Your task to perform on an android device: turn pop-ups off in chrome Image 0: 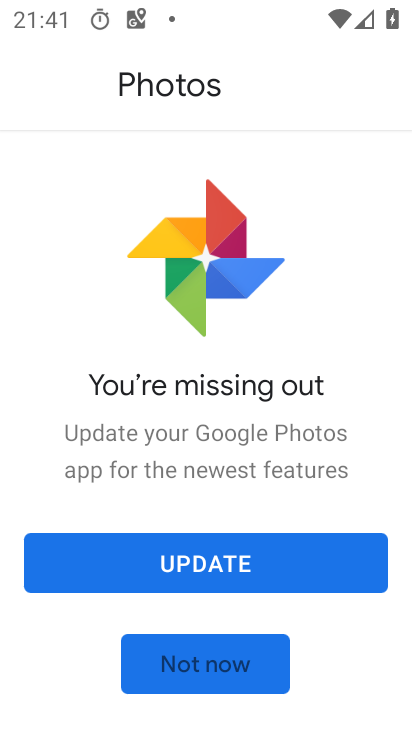
Step 0: press home button
Your task to perform on an android device: turn pop-ups off in chrome Image 1: 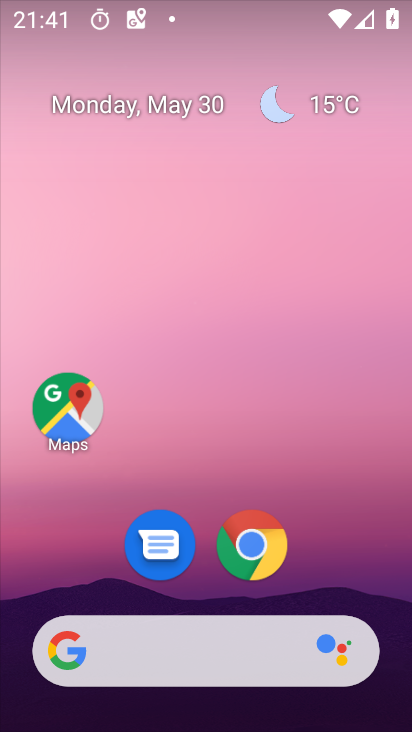
Step 1: click (255, 542)
Your task to perform on an android device: turn pop-ups off in chrome Image 2: 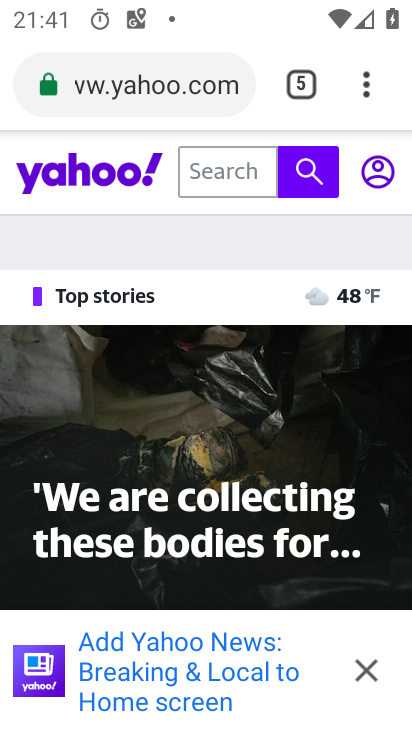
Step 2: click (372, 85)
Your task to perform on an android device: turn pop-ups off in chrome Image 3: 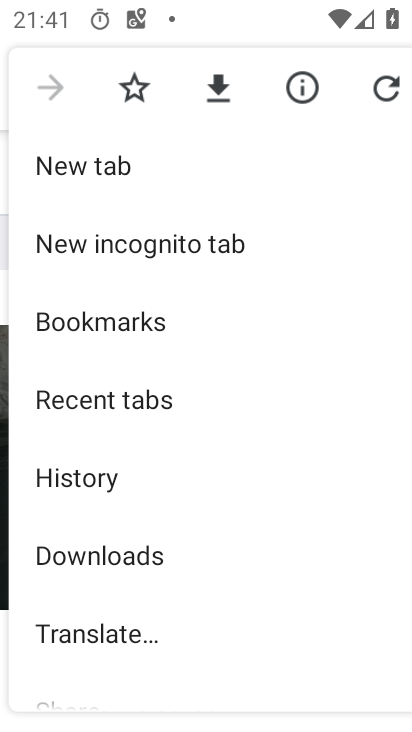
Step 3: drag from (176, 590) to (181, 324)
Your task to perform on an android device: turn pop-ups off in chrome Image 4: 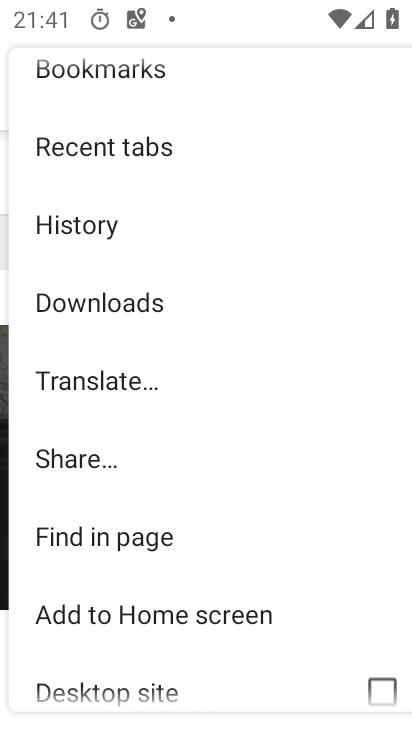
Step 4: drag from (193, 666) to (176, 362)
Your task to perform on an android device: turn pop-ups off in chrome Image 5: 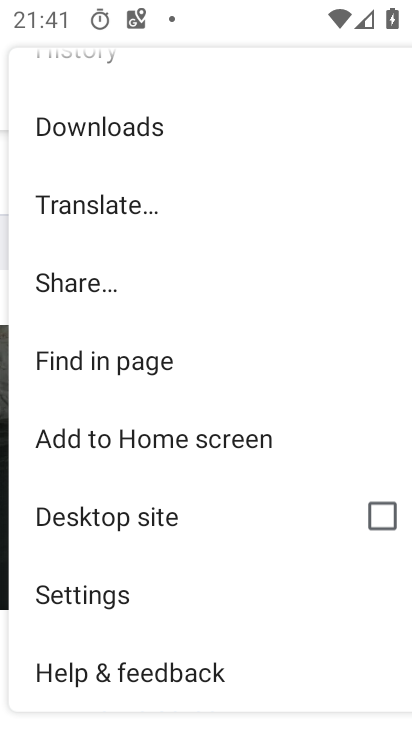
Step 5: click (102, 602)
Your task to perform on an android device: turn pop-ups off in chrome Image 6: 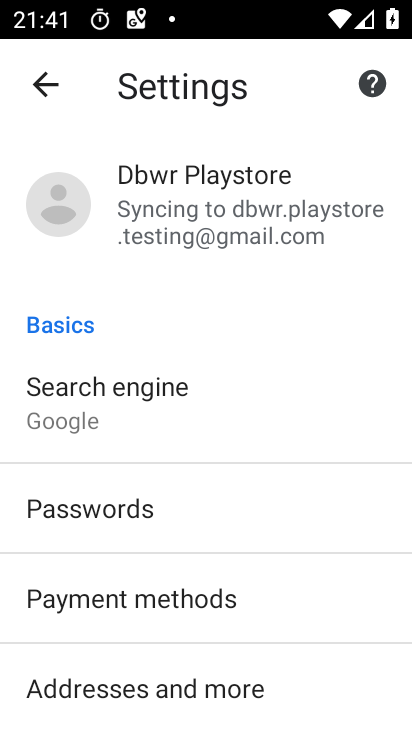
Step 6: drag from (307, 610) to (273, 295)
Your task to perform on an android device: turn pop-ups off in chrome Image 7: 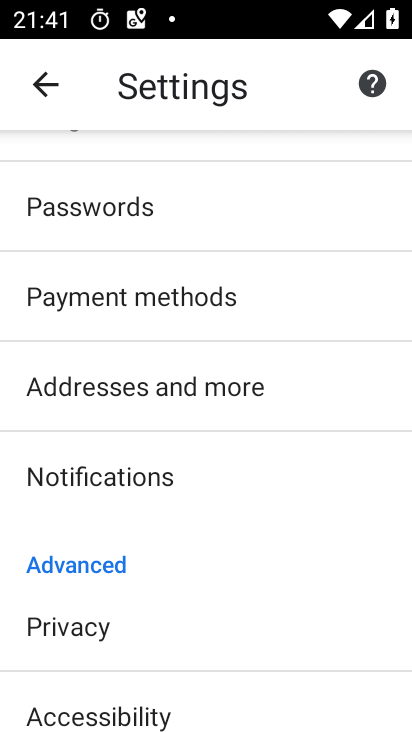
Step 7: drag from (245, 663) to (250, 398)
Your task to perform on an android device: turn pop-ups off in chrome Image 8: 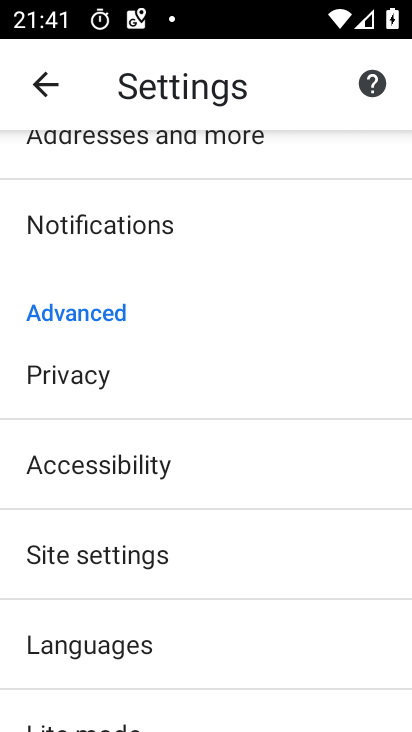
Step 8: click (181, 565)
Your task to perform on an android device: turn pop-ups off in chrome Image 9: 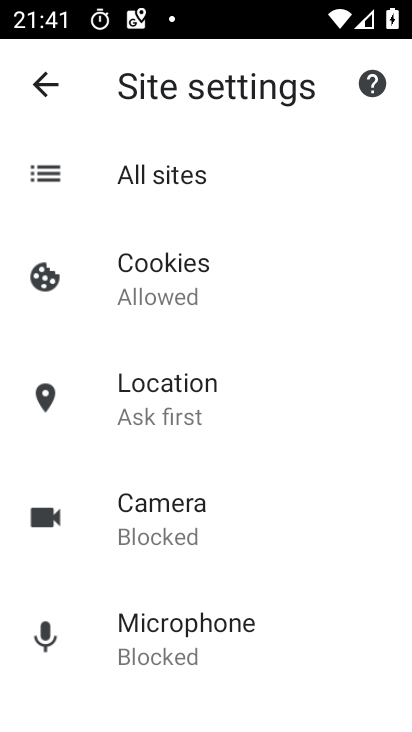
Step 9: drag from (287, 602) to (245, 85)
Your task to perform on an android device: turn pop-ups off in chrome Image 10: 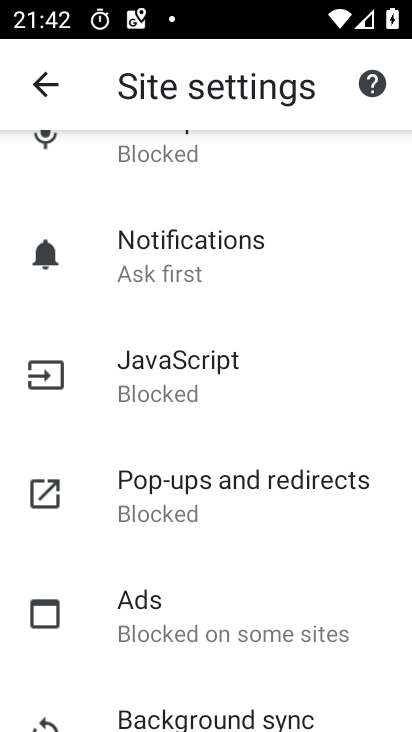
Step 10: click (217, 498)
Your task to perform on an android device: turn pop-ups off in chrome Image 11: 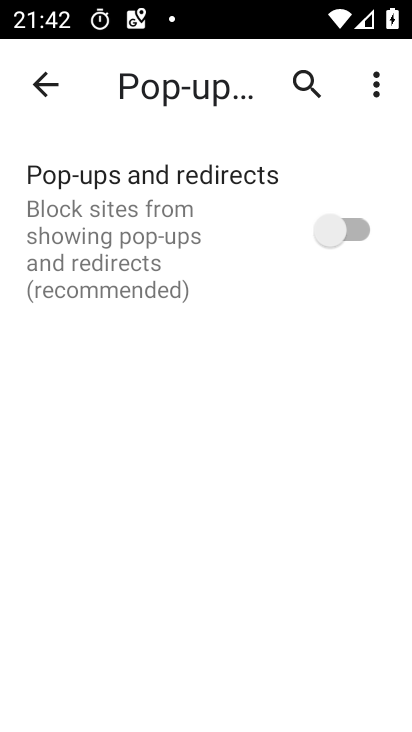
Step 11: task complete